Your task to perform on an android device: open app "Etsy: Buy & Sell Unique Items" (install if not already installed) and enter user name: "camp@inbox.com" and password: "unrelated" Image 0: 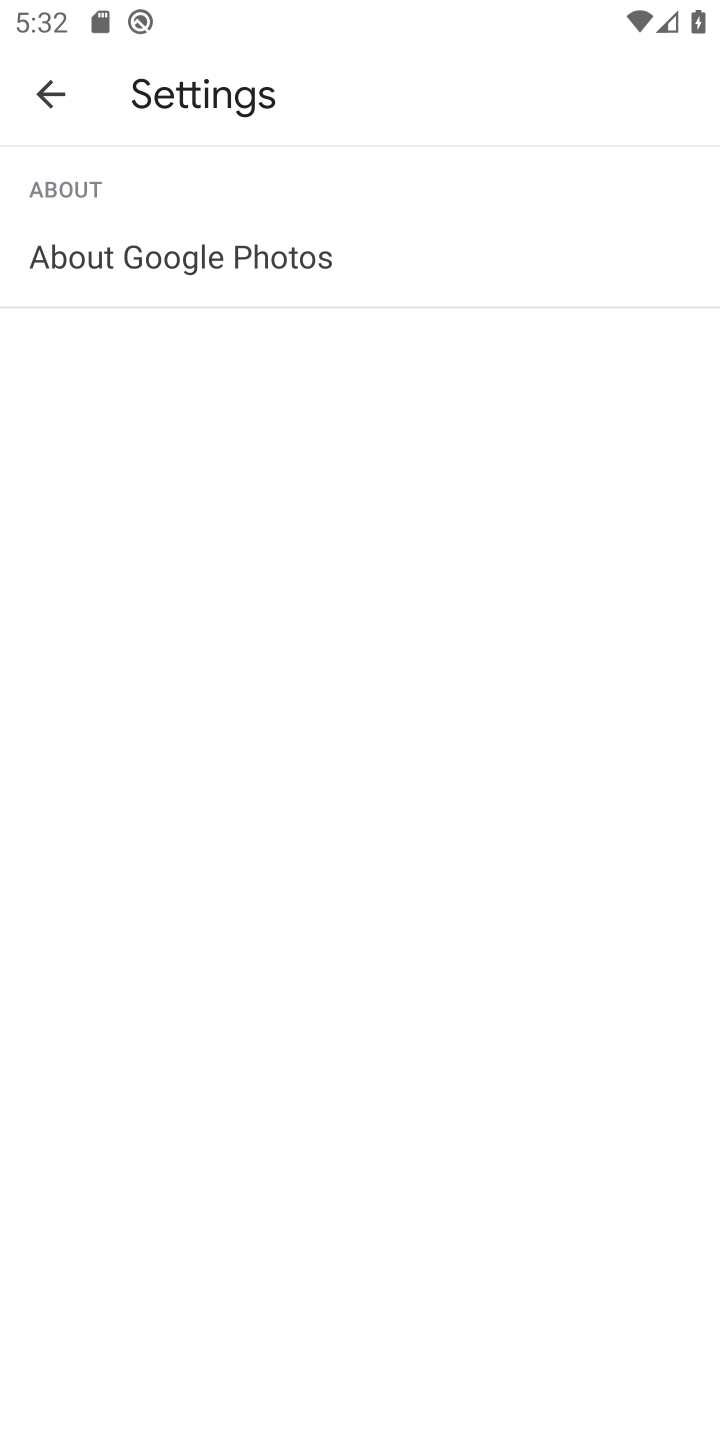
Step 0: press home button
Your task to perform on an android device: open app "Etsy: Buy & Sell Unique Items" (install if not already installed) and enter user name: "camp@inbox.com" and password: "unrelated" Image 1: 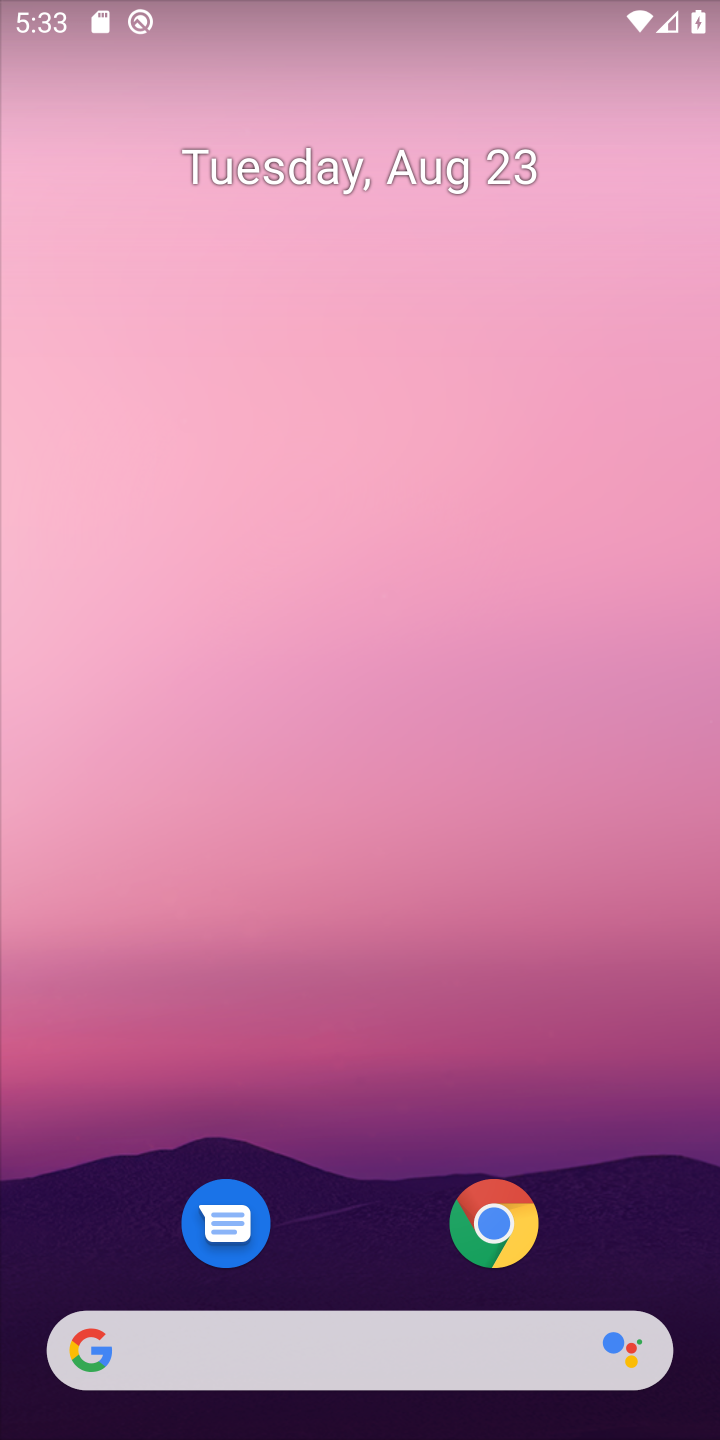
Step 1: drag from (338, 1329) to (210, 0)
Your task to perform on an android device: open app "Etsy: Buy & Sell Unique Items" (install if not already installed) and enter user name: "camp@inbox.com" and password: "unrelated" Image 2: 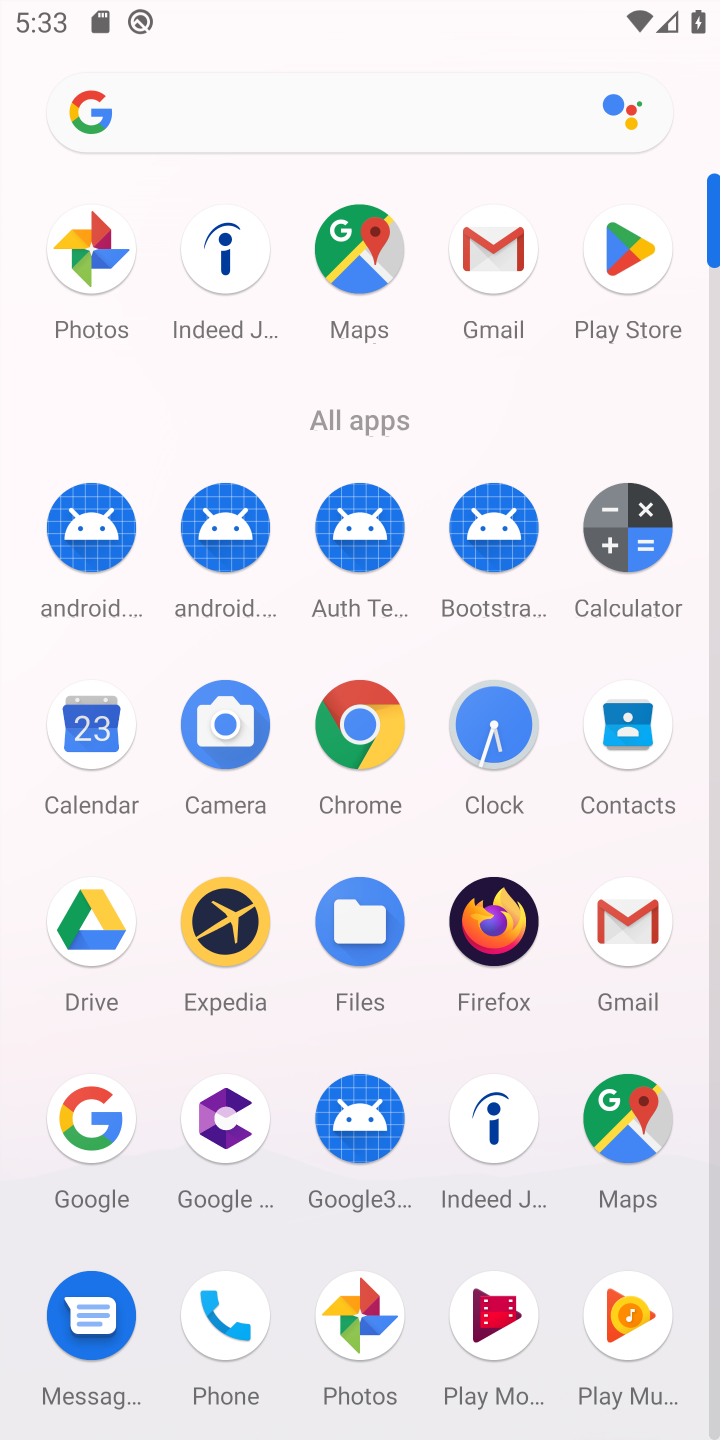
Step 2: click (618, 279)
Your task to perform on an android device: open app "Etsy: Buy & Sell Unique Items" (install if not already installed) and enter user name: "camp@inbox.com" and password: "unrelated" Image 3: 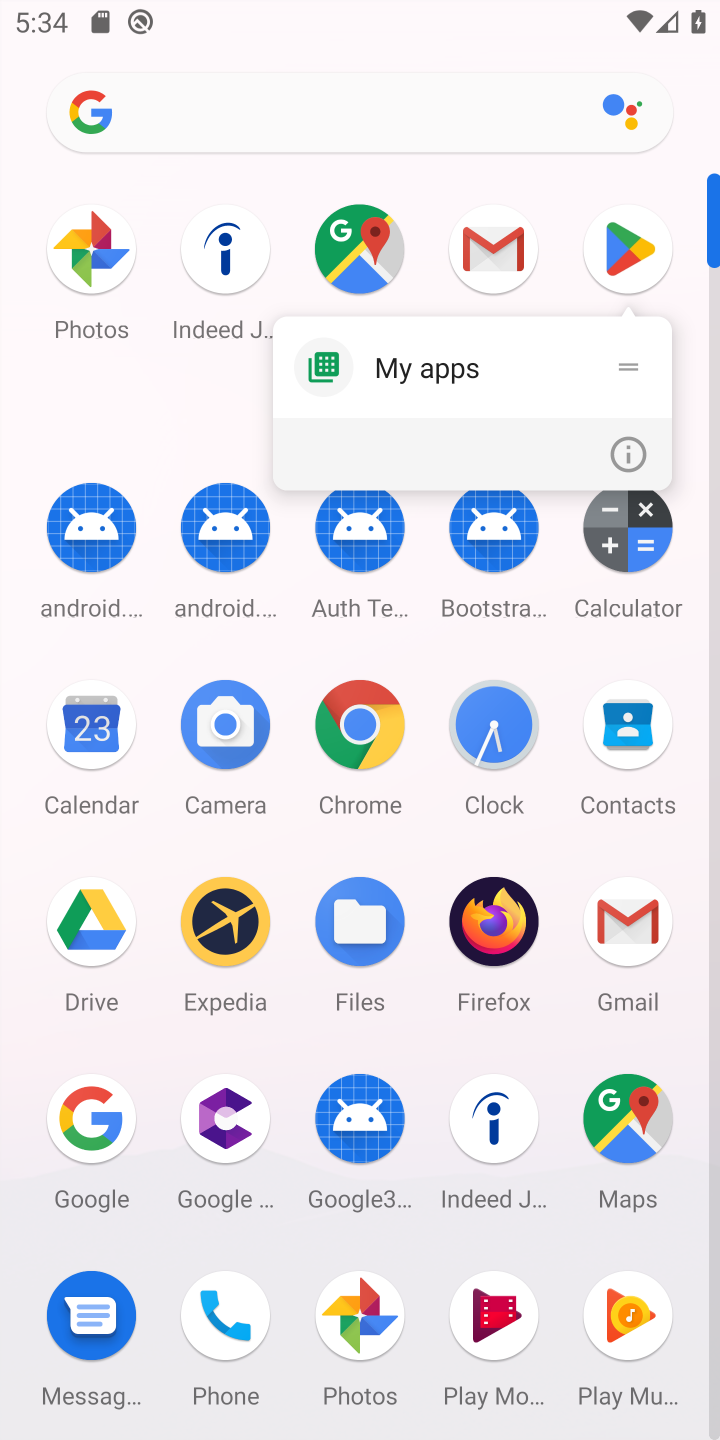
Step 3: click (619, 264)
Your task to perform on an android device: open app "Etsy: Buy & Sell Unique Items" (install if not already installed) and enter user name: "camp@inbox.com" and password: "unrelated" Image 4: 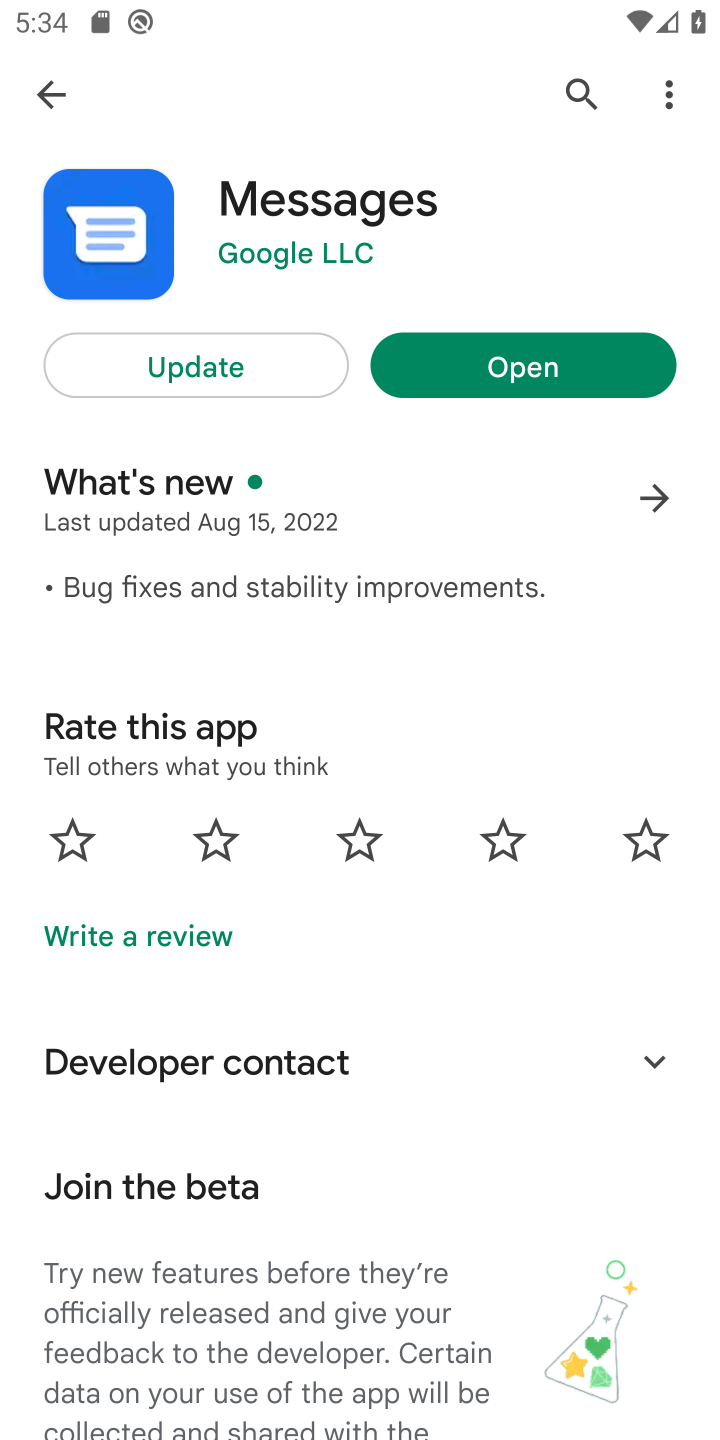
Step 4: click (569, 99)
Your task to perform on an android device: open app "Etsy: Buy & Sell Unique Items" (install if not already installed) and enter user name: "camp@inbox.com" and password: "unrelated" Image 5: 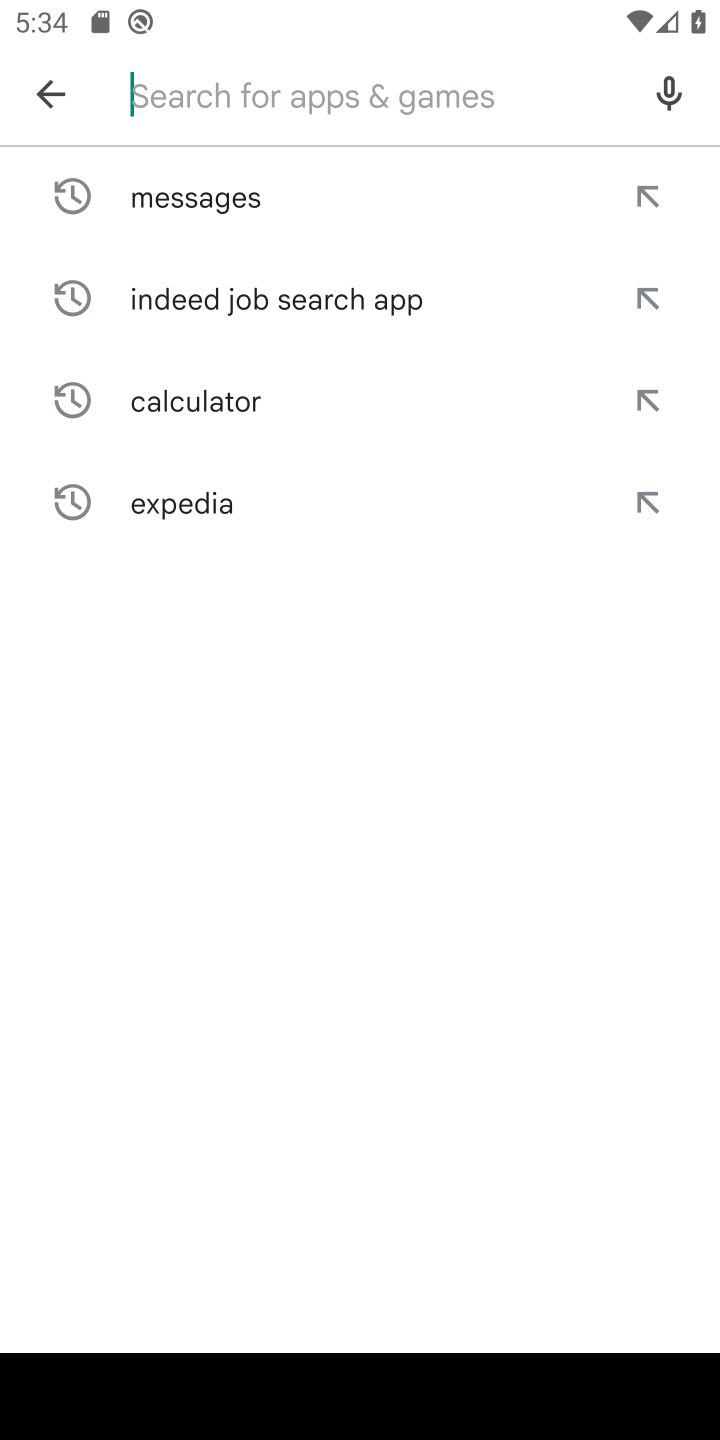
Step 5: type "etsy"
Your task to perform on an android device: open app "Etsy: Buy & Sell Unique Items" (install if not already installed) and enter user name: "camp@inbox.com" and password: "unrelated" Image 6: 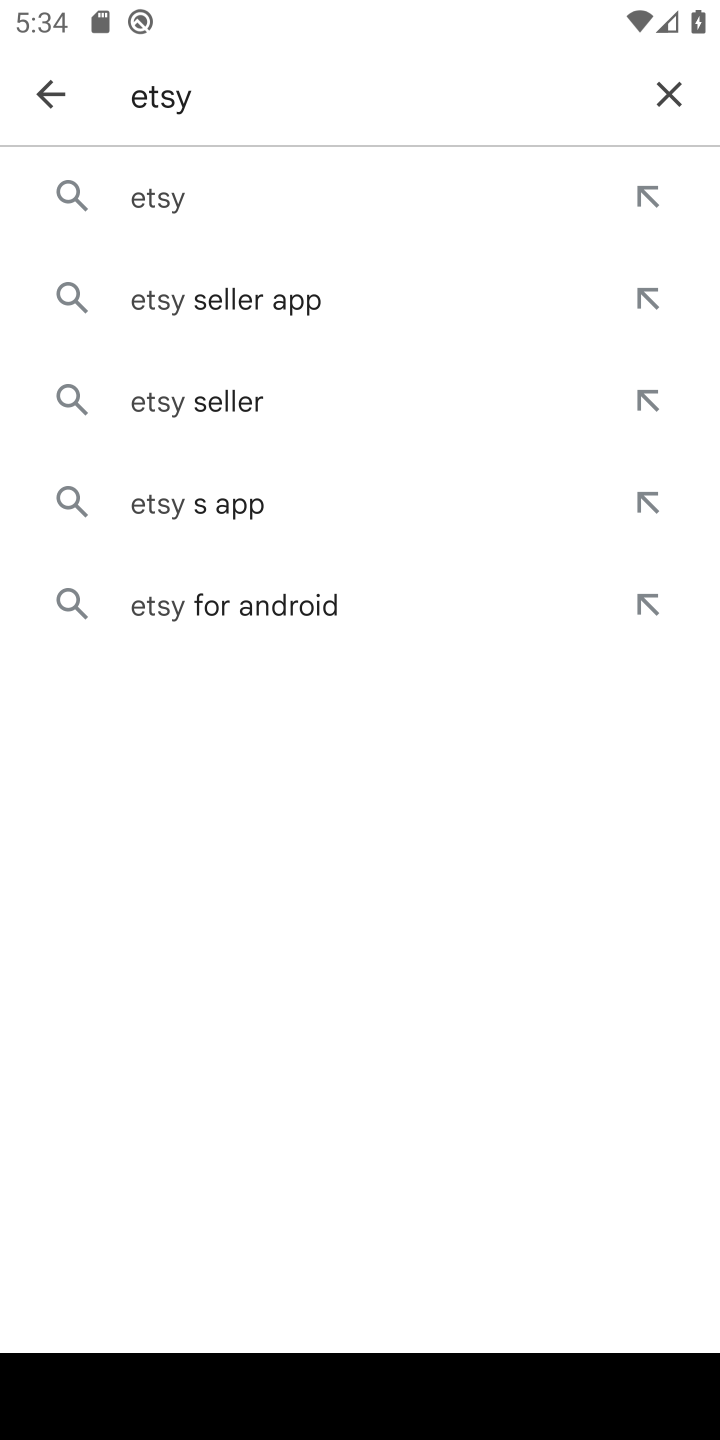
Step 6: click (168, 212)
Your task to perform on an android device: open app "Etsy: Buy & Sell Unique Items" (install if not already installed) and enter user name: "camp@inbox.com" and password: "unrelated" Image 7: 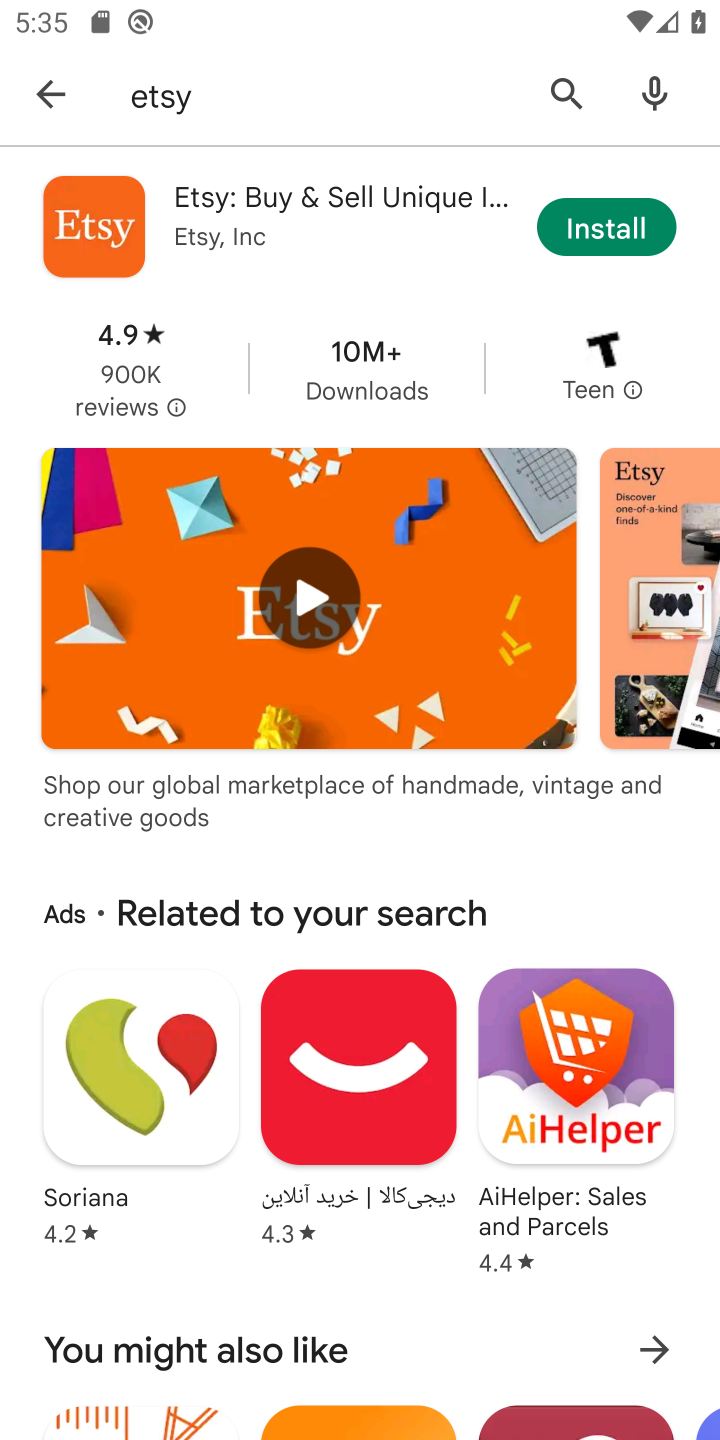
Step 7: click (596, 219)
Your task to perform on an android device: open app "Etsy: Buy & Sell Unique Items" (install if not already installed) and enter user name: "camp@inbox.com" and password: "unrelated" Image 8: 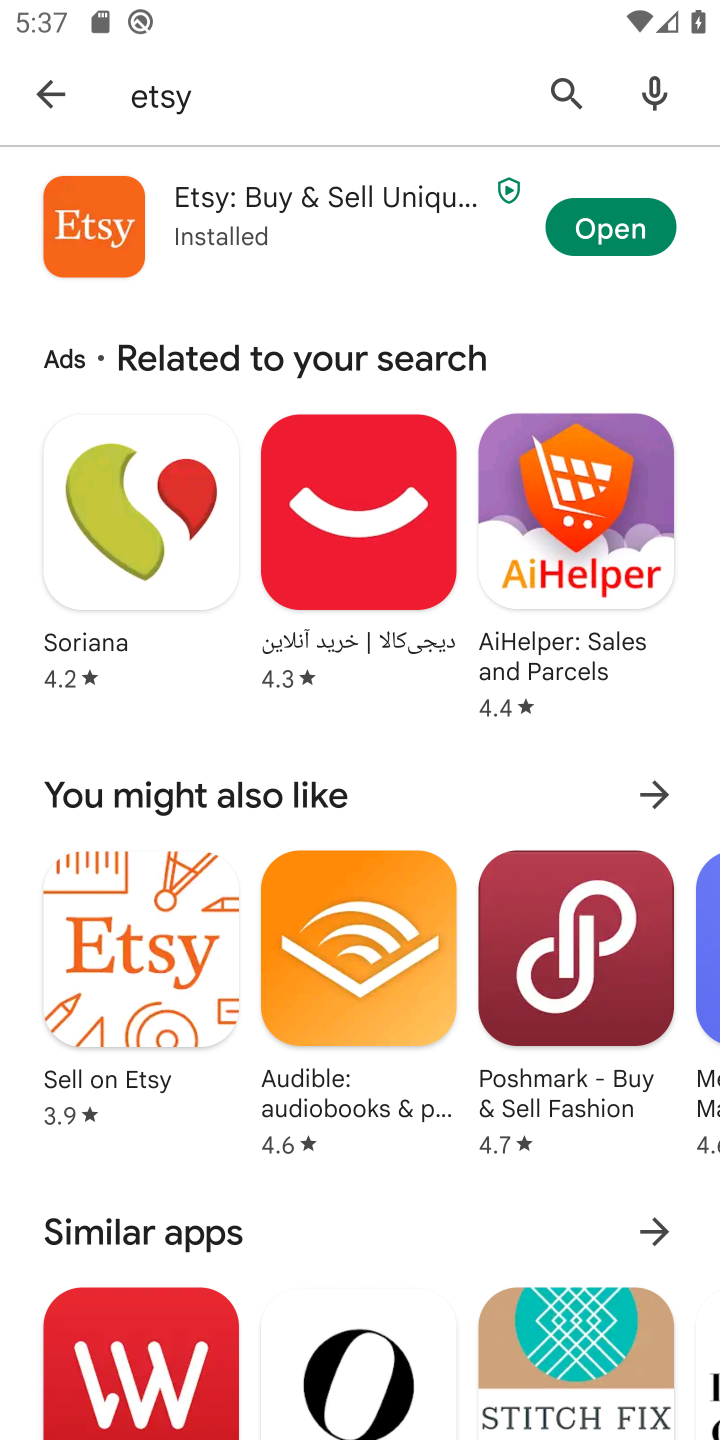
Step 8: click (656, 245)
Your task to perform on an android device: open app "Etsy: Buy & Sell Unique Items" (install if not already installed) and enter user name: "camp@inbox.com" and password: "unrelated" Image 9: 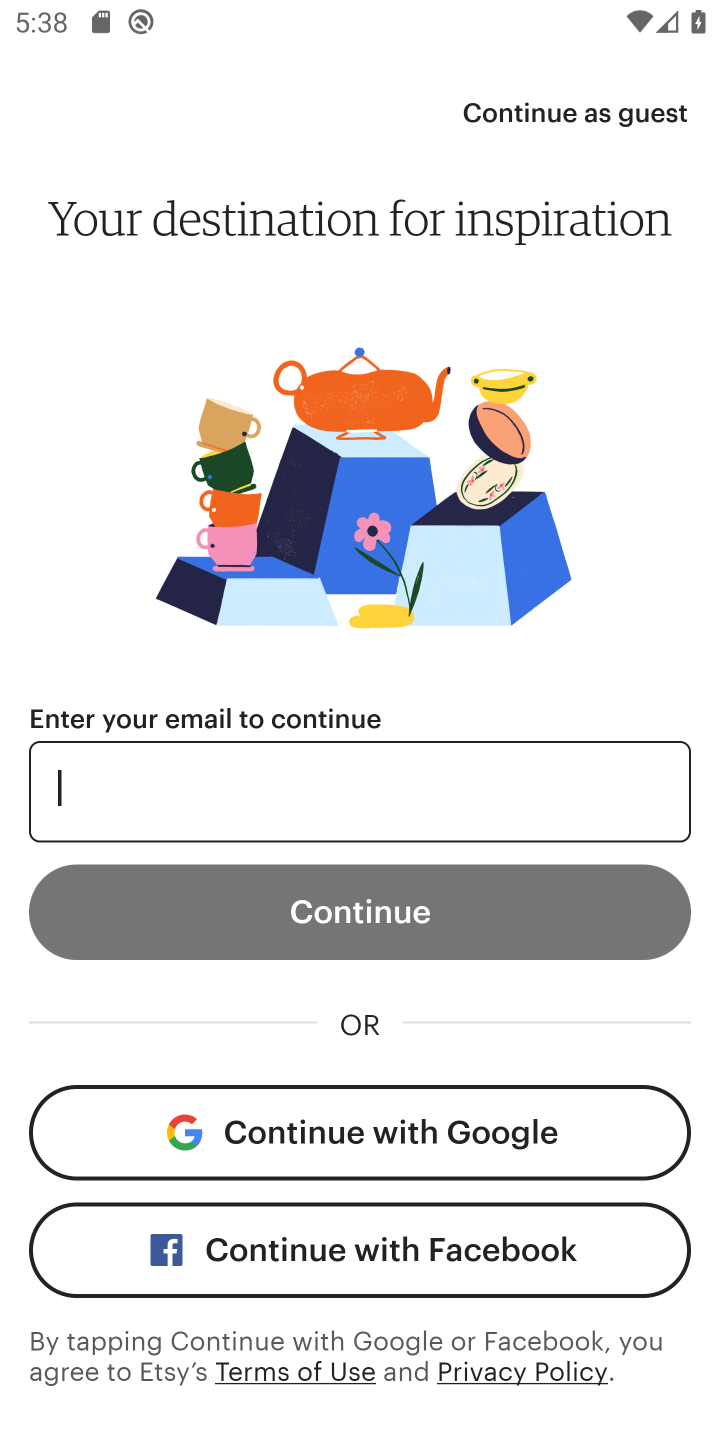
Step 9: type "camp@inbox.com"
Your task to perform on an android device: open app "Etsy: Buy & Sell Unique Items" (install if not already installed) and enter user name: "camp@inbox.com" and password: "unrelated" Image 10: 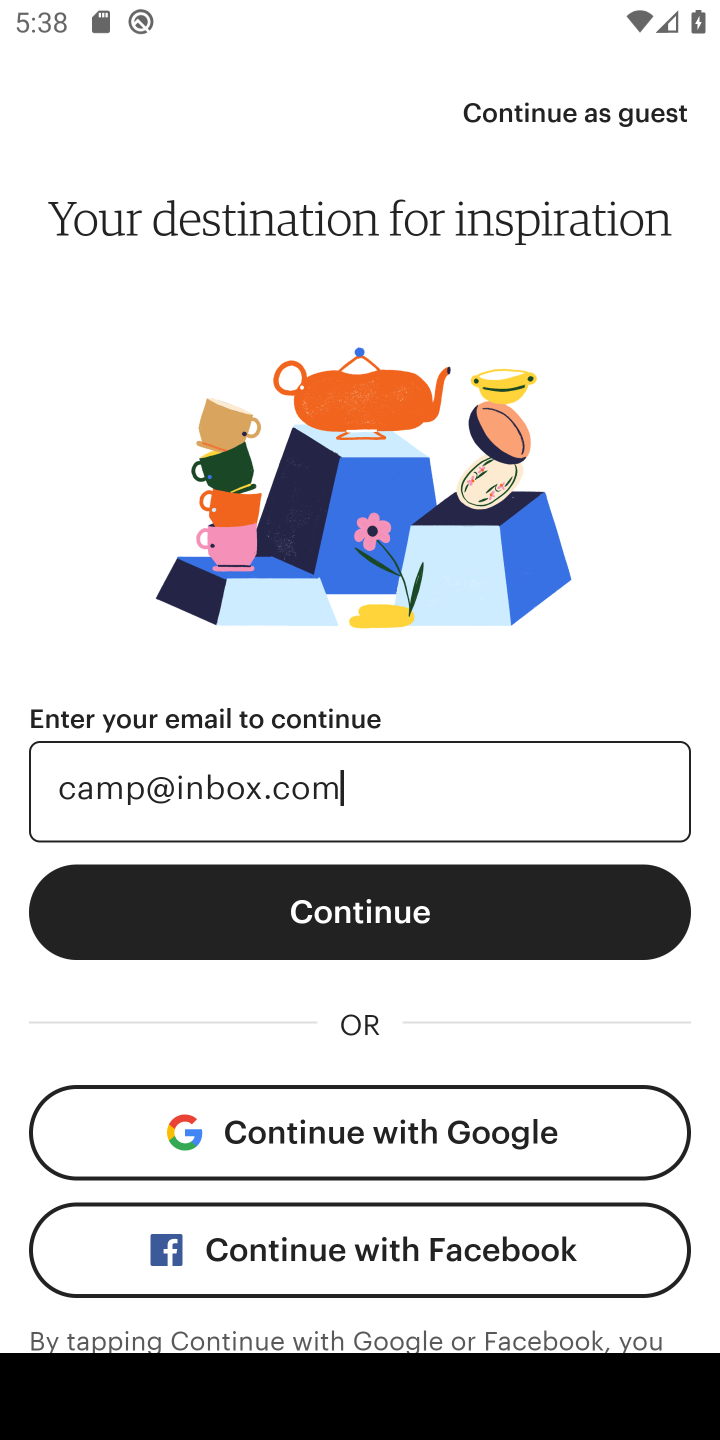
Step 10: click (460, 923)
Your task to perform on an android device: open app "Etsy: Buy & Sell Unique Items" (install if not already installed) and enter user name: "camp@inbox.com" and password: "unrelated" Image 11: 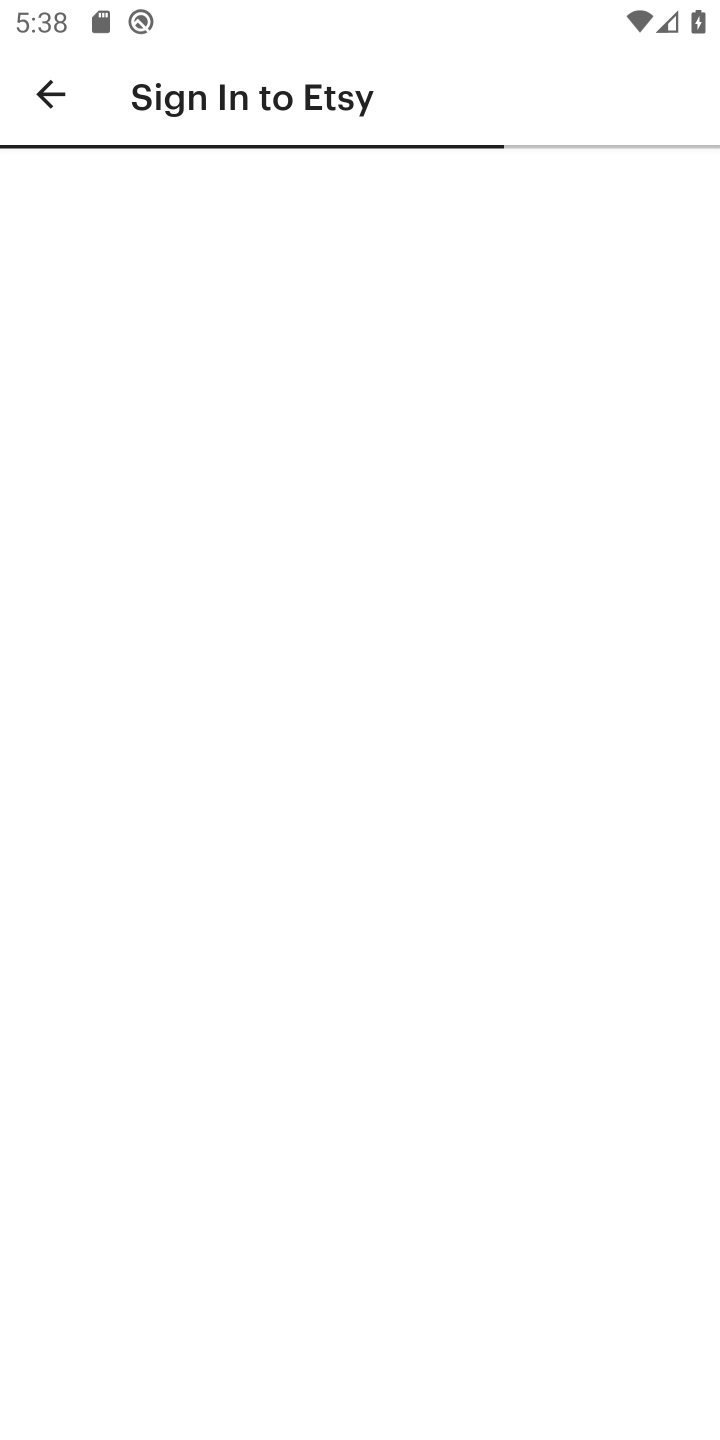
Step 11: task complete